Your task to perform on an android device: Go to settings Image 0: 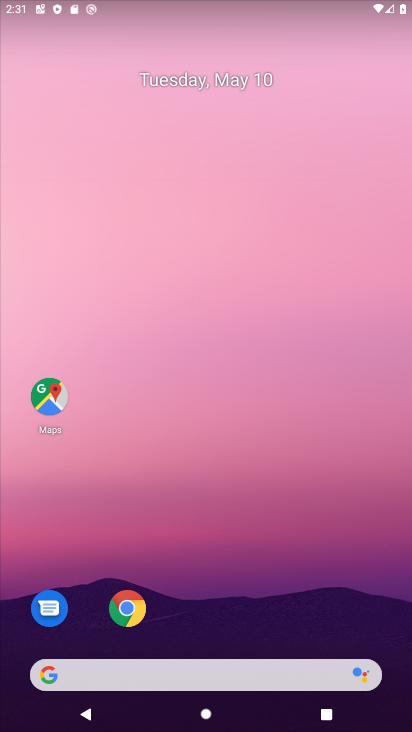
Step 0: drag from (209, 630) to (254, 8)
Your task to perform on an android device: Go to settings Image 1: 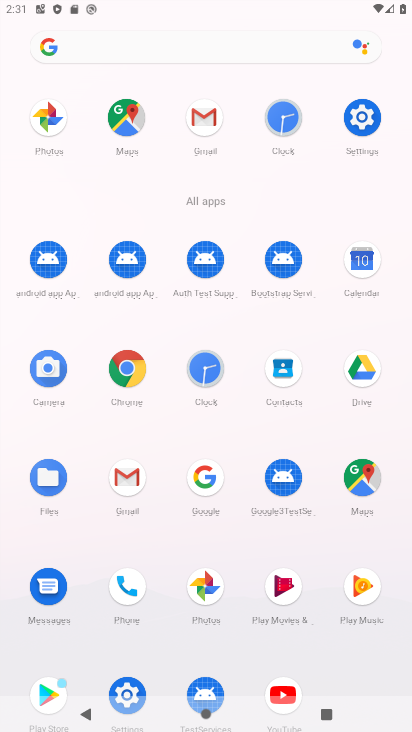
Step 1: click (352, 131)
Your task to perform on an android device: Go to settings Image 2: 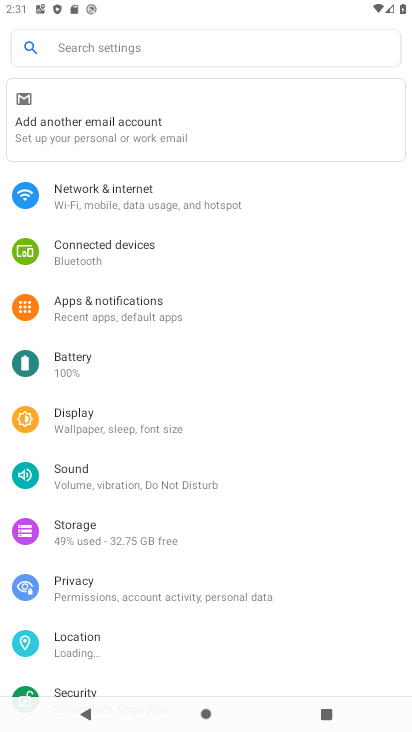
Step 2: task complete